Your task to perform on an android device: change the clock display to analog Image 0: 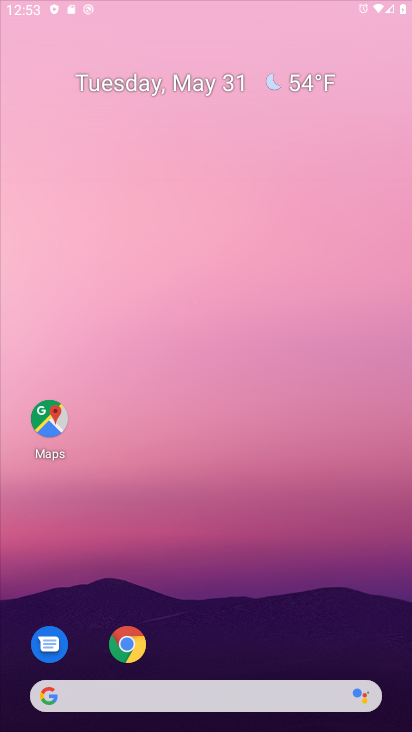
Step 0: press home button
Your task to perform on an android device: change the clock display to analog Image 1: 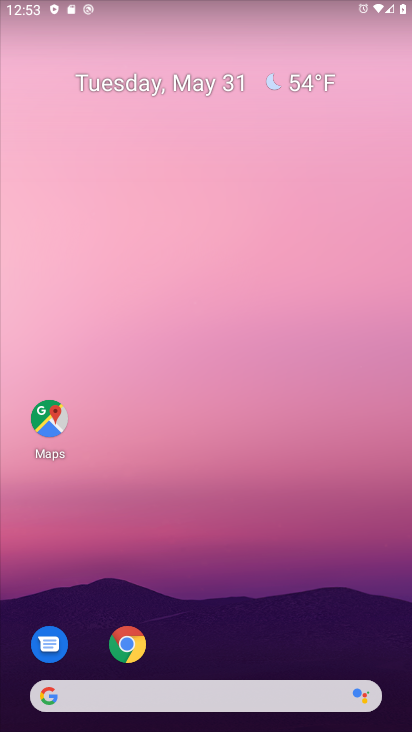
Step 1: drag from (247, 625) to (192, 260)
Your task to perform on an android device: change the clock display to analog Image 2: 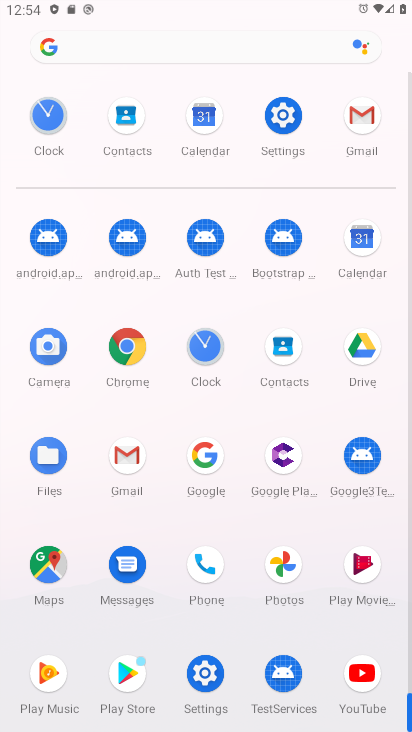
Step 2: click (49, 114)
Your task to perform on an android device: change the clock display to analog Image 3: 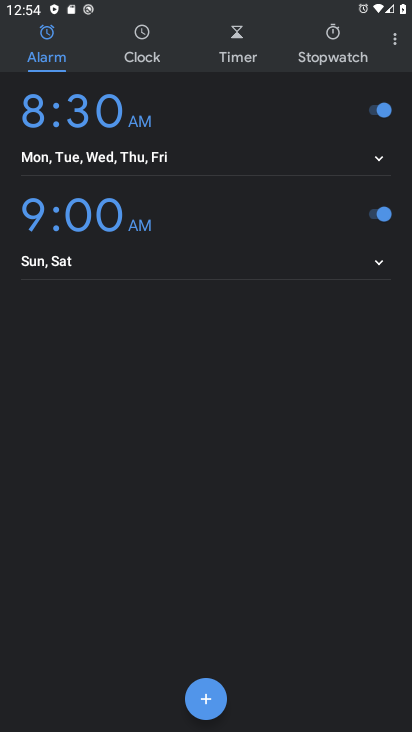
Step 3: click (399, 44)
Your task to perform on an android device: change the clock display to analog Image 4: 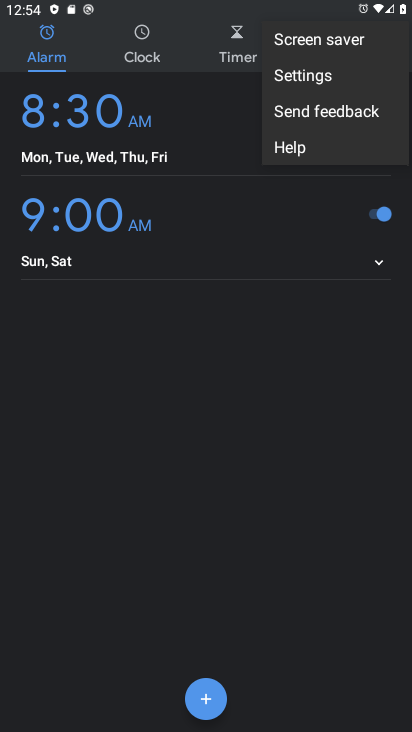
Step 4: click (330, 74)
Your task to perform on an android device: change the clock display to analog Image 5: 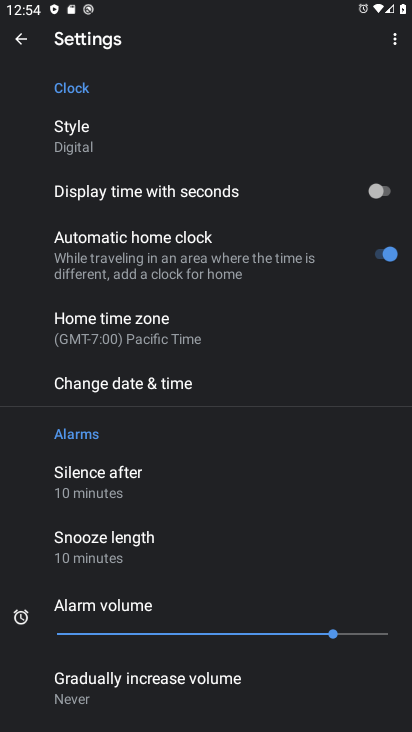
Step 5: click (83, 139)
Your task to perform on an android device: change the clock display to analog Image 6: 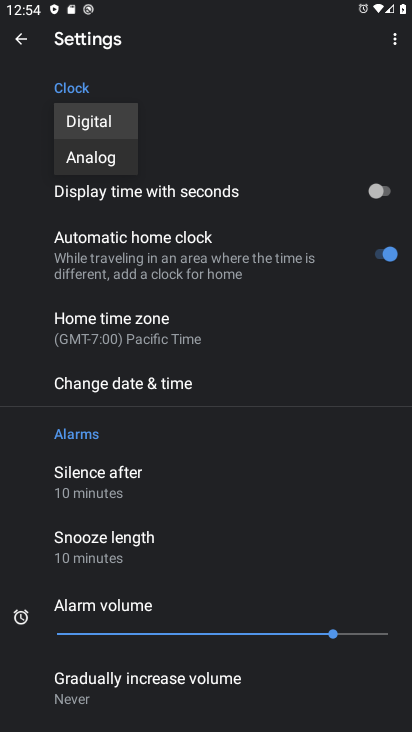
Step 6: click (84, 157)
Your task to perform on an android device: change the clock display to analog Image 7: 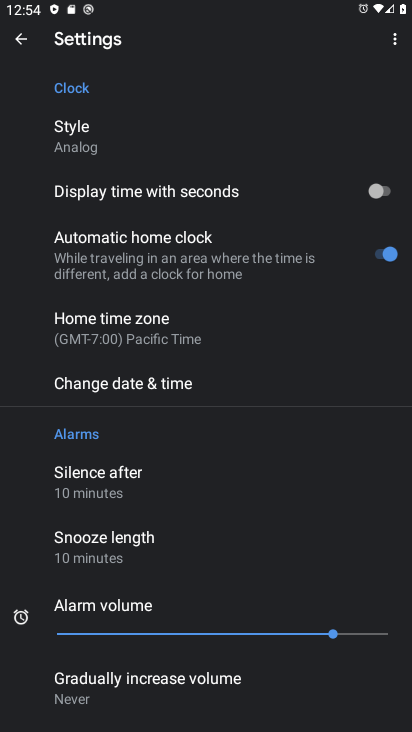
Step 7: task complete